Your task to perform on an android device: delete the emails in spam in the gmail app Image 0: 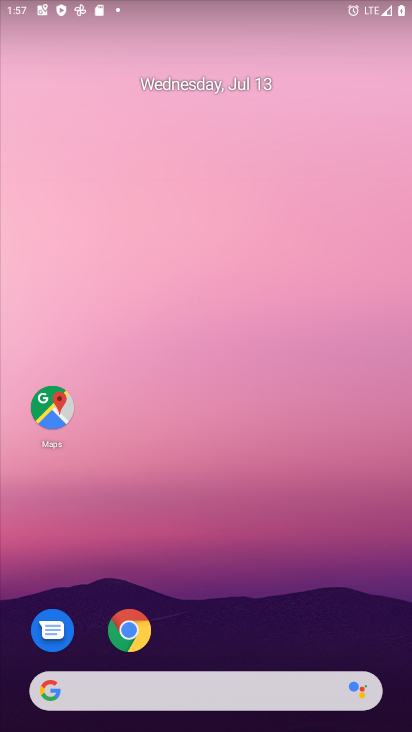
Step 0: drag from (391, 663) to (278, 4)
Your task to perform on an android device: delete the emails in spam in the gmail app Image 1: 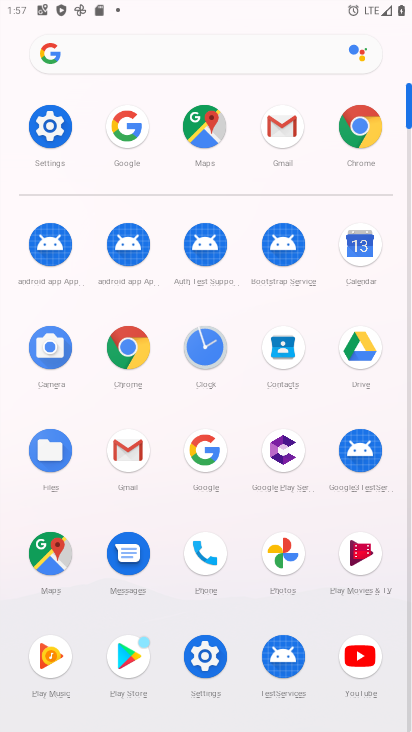
Step 1: click (135, 449)
Your task to perform on an android device: delete the emails in spam in the gmail app Image 2: 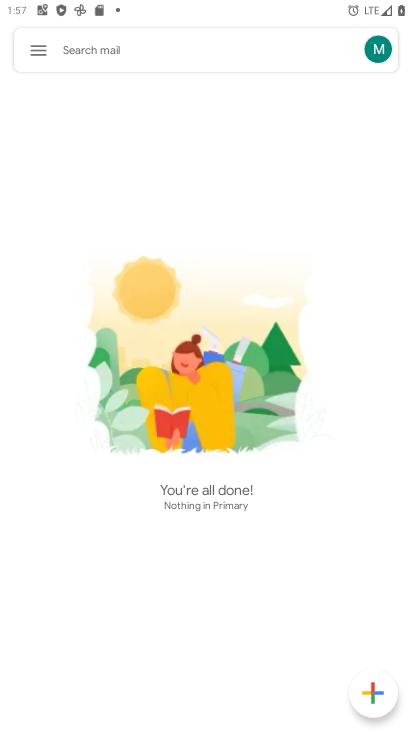
Step 2: click (37, 40)
Your task to perform on an android device: delete the emails in spam in the gmail app Image 3: 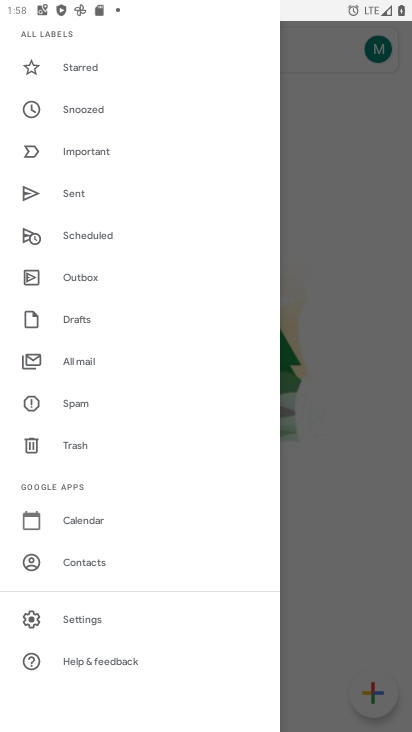
Step 3: click (74, 415)
Your task to perform on an android device: delete the emails in spam in the gmail app Image 4: 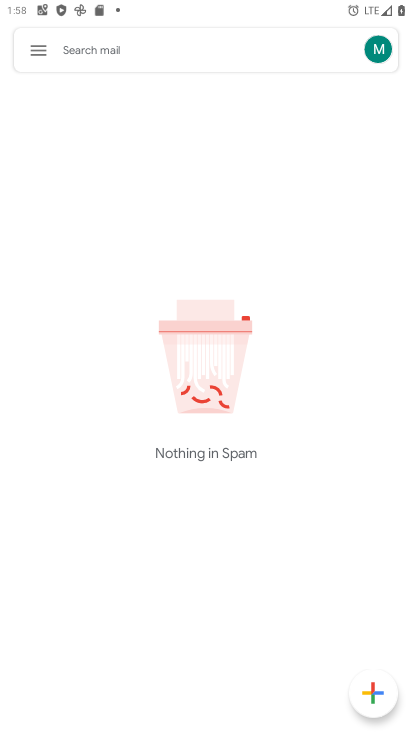
Step 4: task complete